Your task to perform on an android device: Go to Maps Image 0: 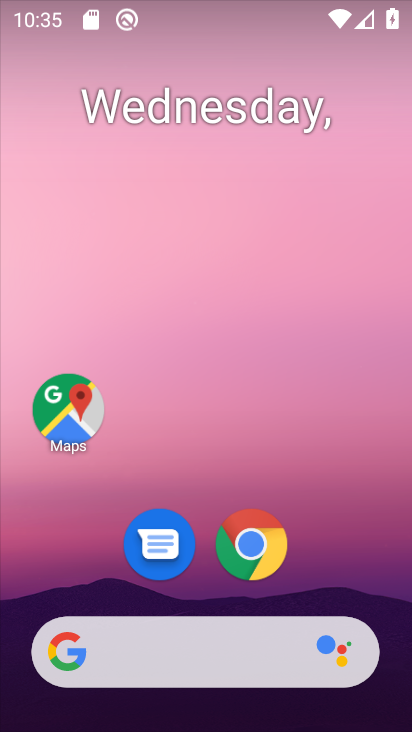
Step 0: click (59, 418)
Your task to perform on an android device: Go to Maps Image 1: 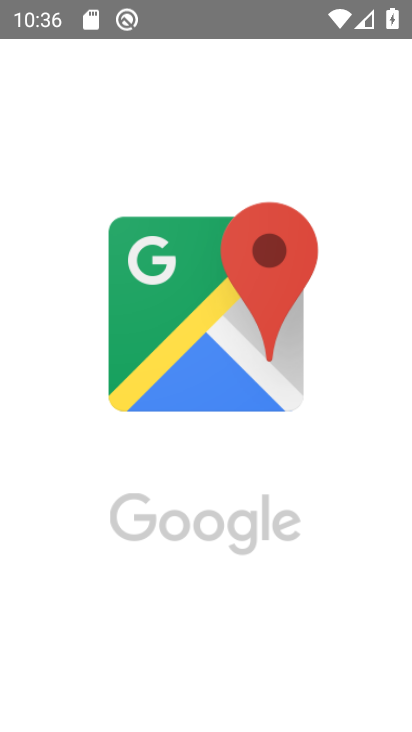
Step 1: task complete